Your task to perform on an android device: turn on the 24-hour format for clock Image 0: 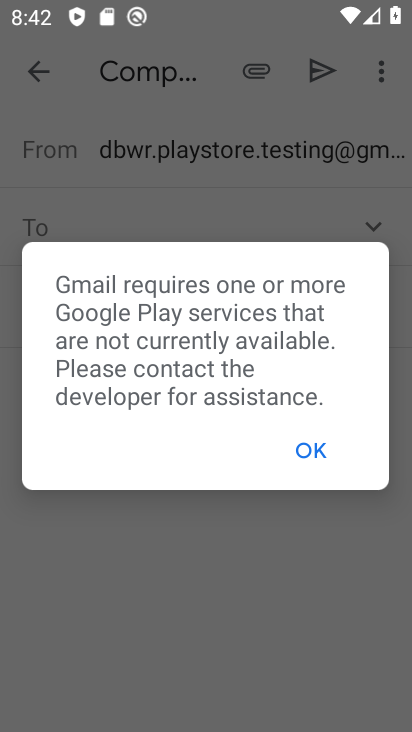
Step 0: press home button
Your task to perform on an android device: turn on the 24-hour format for clock Image 1: 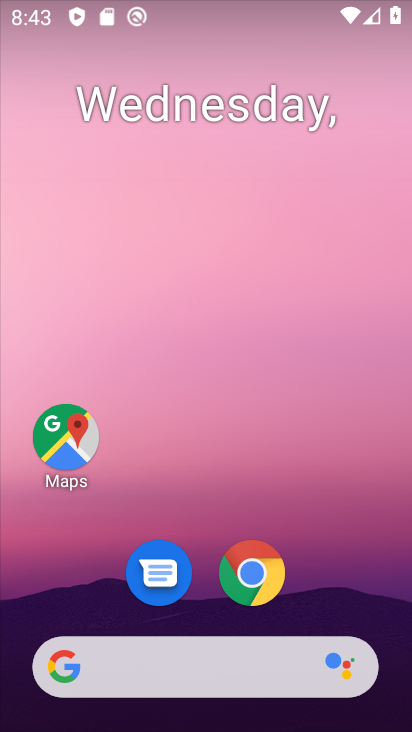
Step 1: drag from (368, 307) to (348, 156)
Your task to perform on an android device: turn on the 24-hour format for clock Image 2: 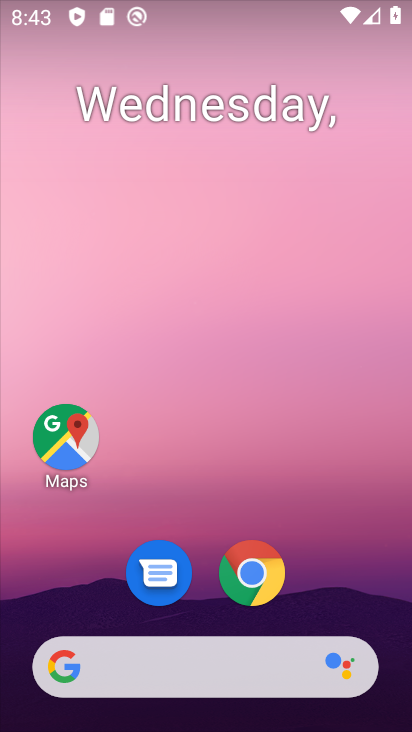
Step 2: drag from (392, 607) to (368, 248)
Your task to perform on an android device: turn on the 24-hour format for clock Image 3: 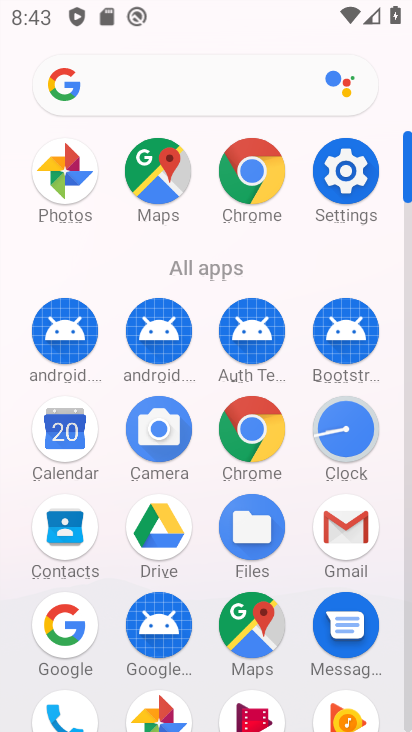
Step 3: click (346, 164)
Your task to perform on an android device: turn on the 24-hour format for clock Image 4: 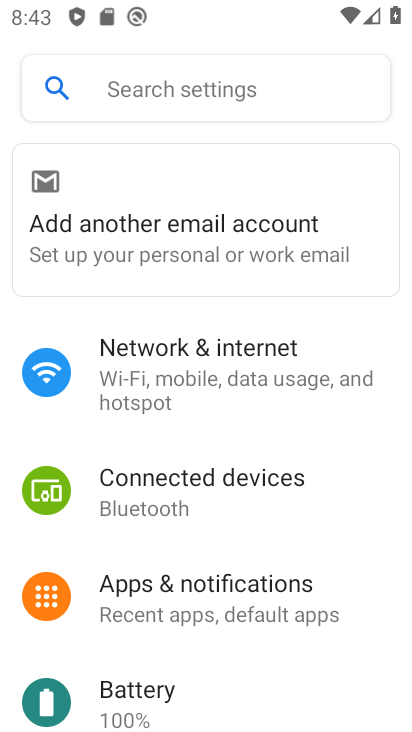
Step 4: drag from (379, 506) to (382, 372)
Your task to perform on an android device: turn on the 24-hour format for clock Image 5: 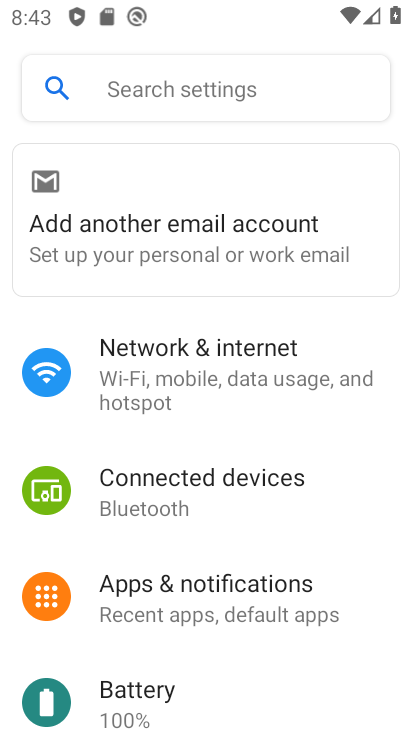
Step 5: click (383, 310)
Your task to perform on an android device: turn on the 24-hour format for clock Image 6: 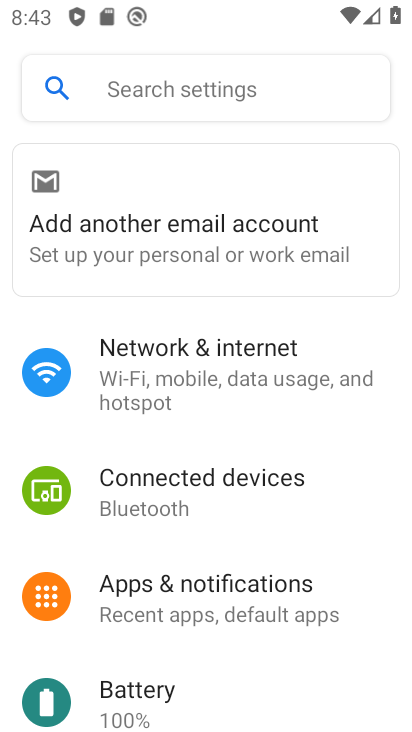
Step 6: drag from (384, 507) to (380, 346)
Your task to perform on an android device: turn on the 24-hour format for clock Image 7: 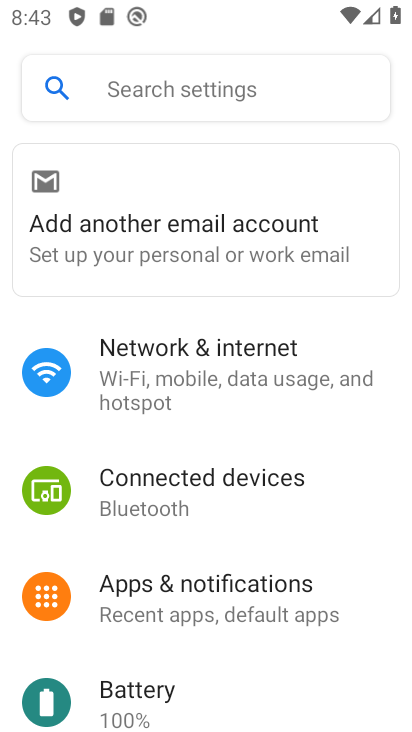
Step 7: press home button
Your task to perform on an android device: turn on the 24-hour format for clock Image 8: 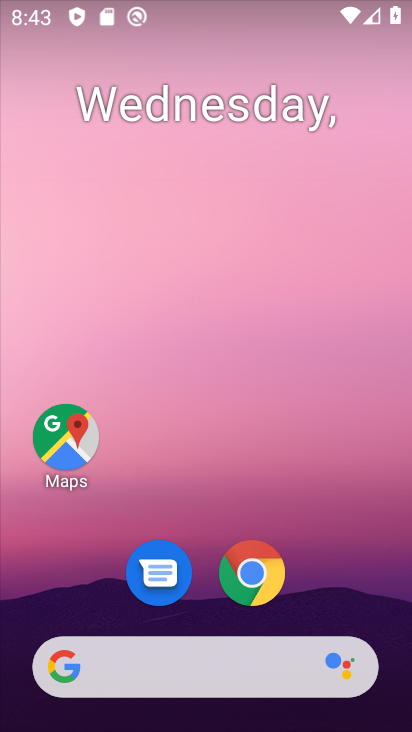
Step 8: drag from (376, 426) to (321, 140)
Your task to perform on an android device: turn on the 24-hour format for clock Image 9: 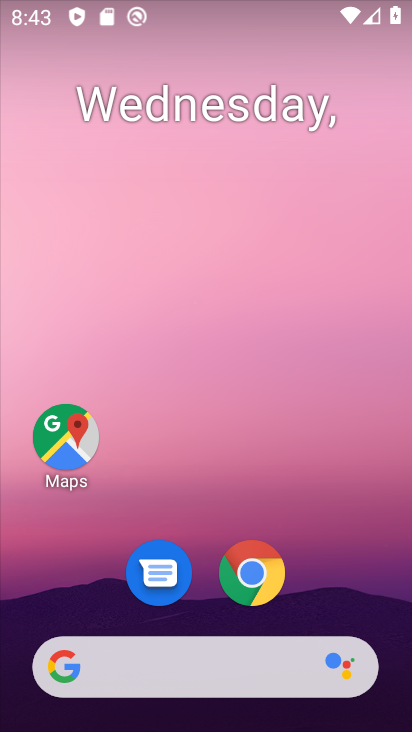
Step 9: drag from (381, 272) to (381, 231)
Your task to perform on an android device: turn on the 24-hour format for clock Image 10: 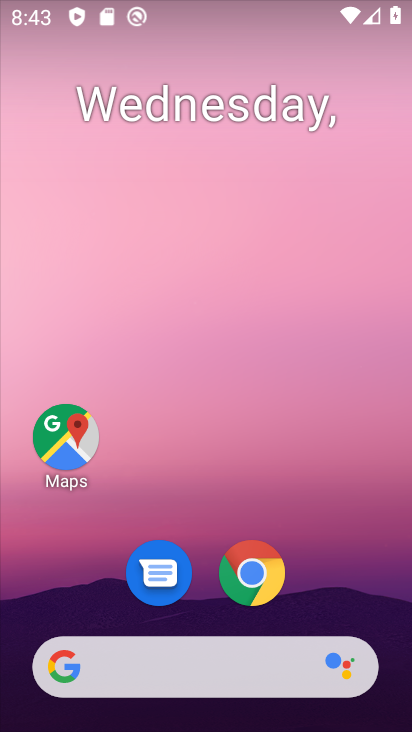
Step 10: drag from (375, 440) to (356, 113)
Your task to perform on an android device: turn on the 24-hour format for clock Image 11: 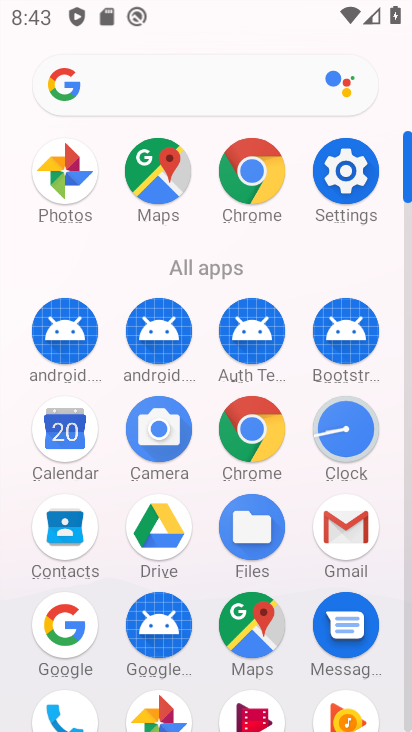
Step 11: click (343, 425)
Your task to perform on an android device: turn on the 24-hour format for clock Image 12: 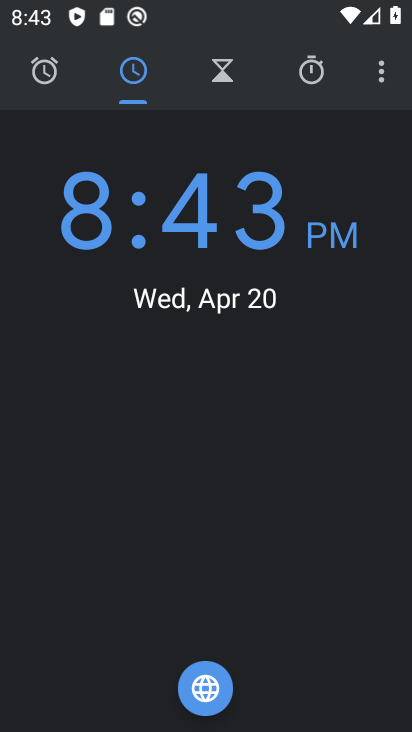
Step 12: click (377, 69)
Your task to perform on an android device: turn on the 24-hour format for clock Image 13: 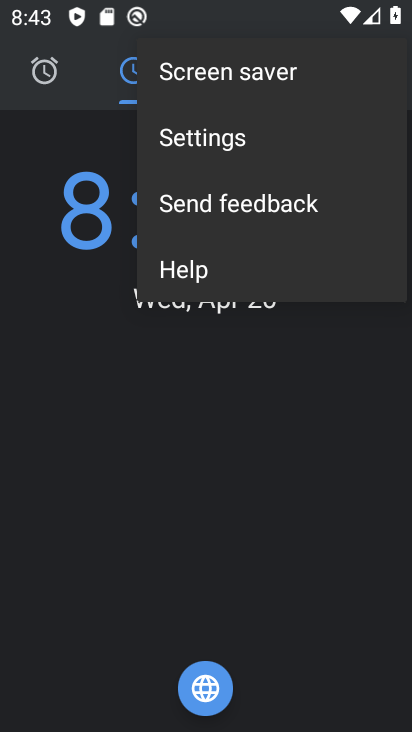
Step 13: click (196, 135)
Your task to perform on an android device: turn on the 24-hour format for clock Image 14: 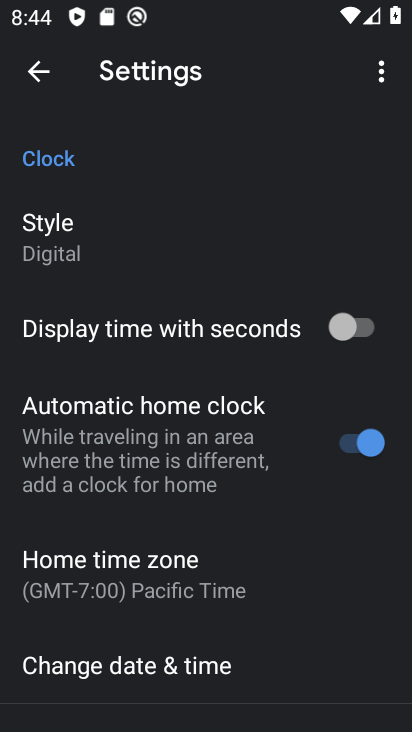
Step 14: click (135, 675)
Your task to perform on an android device: turn on the 24-hour format for clock Image 15: 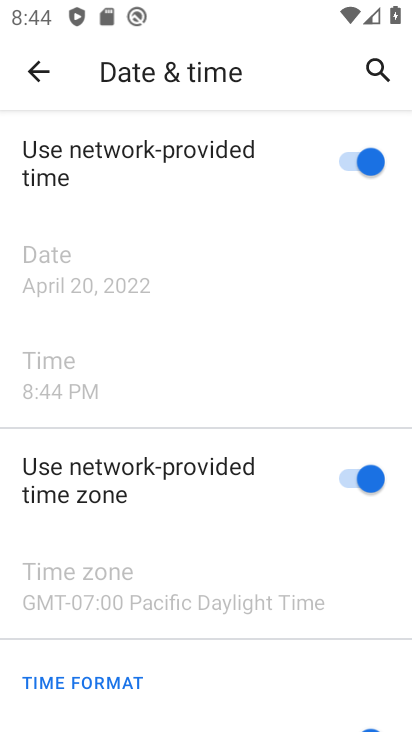
Step 15: drag from (241, 644) to (244, 336)
Your task to perform on an android device: turn on the 24-hour format for clock Image 16: 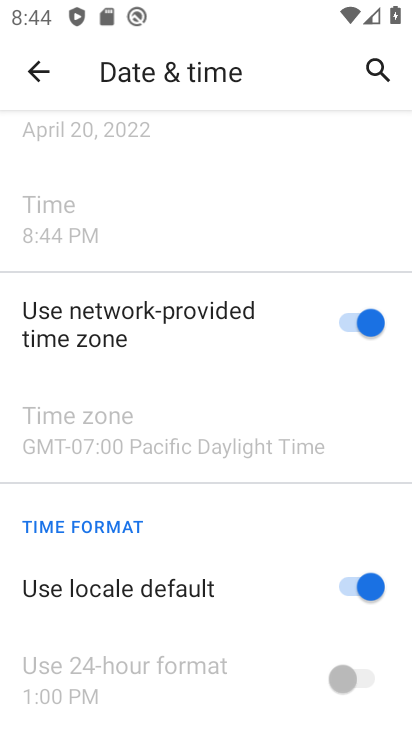
Step 16: click (347, 585)
Your task to perform on an android device: turn on the 24-hour format for clock Image 17: 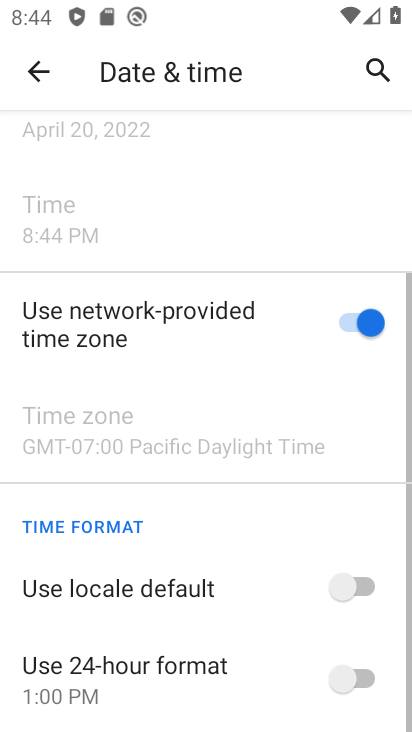
Step 17: click (356, 678)
Your task to perform on an android device: turn on the 24-hour format for clock Image 18: 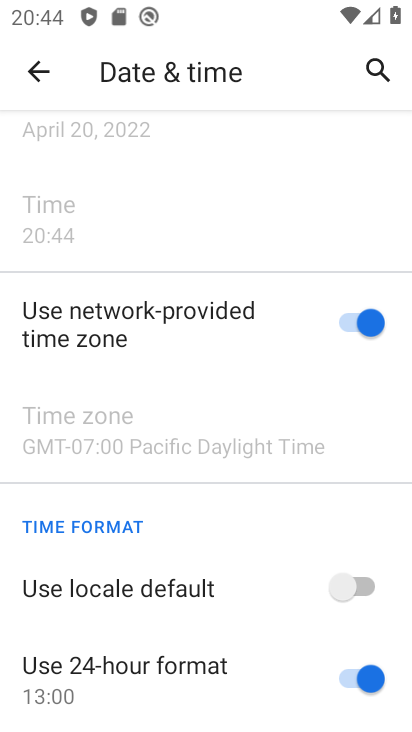
Step 18: task complete